Your task to perform on an android device: toggle show notifications on the lock screen Image 0: 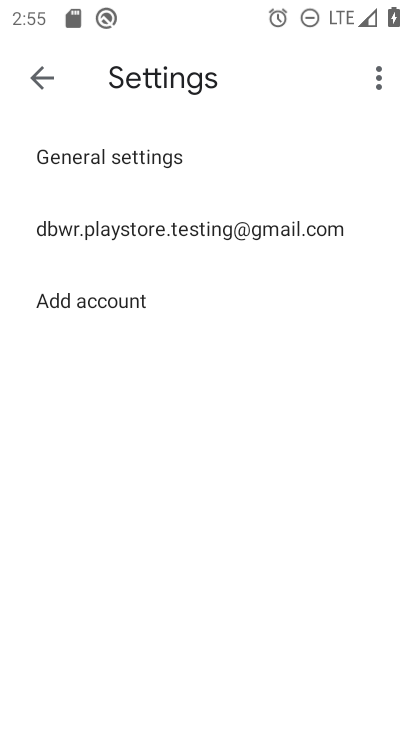
Step 0: click (261, 573)
Your task to perform on an android device: toggle show notifications on the lock screen Image 1: 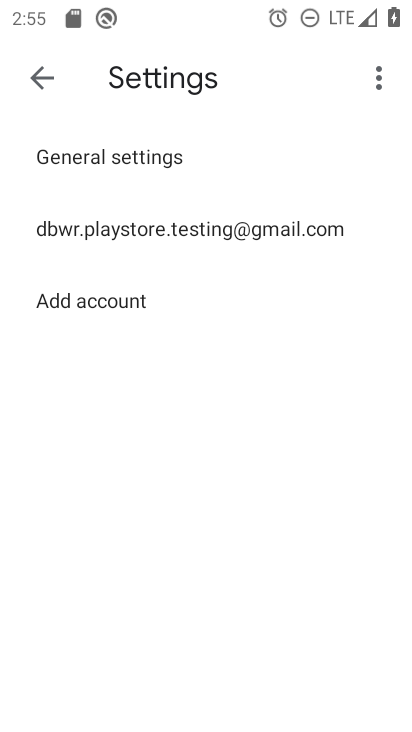
Step 1: press home button
Your task to perform on an android device: toggle show notifications on the lock screen Image 2: 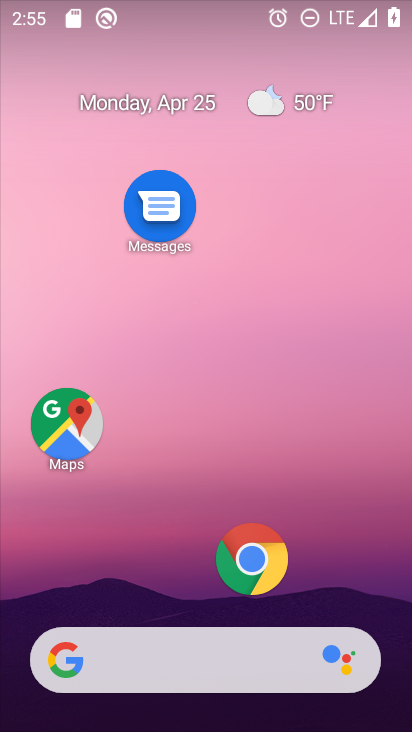
Step 2: drag from (175, 587) to (221, 12)
Your task to perform on an android device: toggle show notifications on the lock screen Image 3: 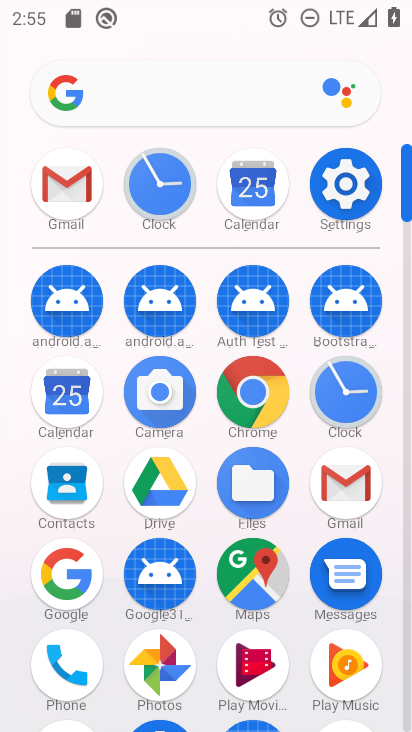
Step 3: click (347, 176)
Your task to perform on an android device: toggle show notifications on the lock screen Image 4: 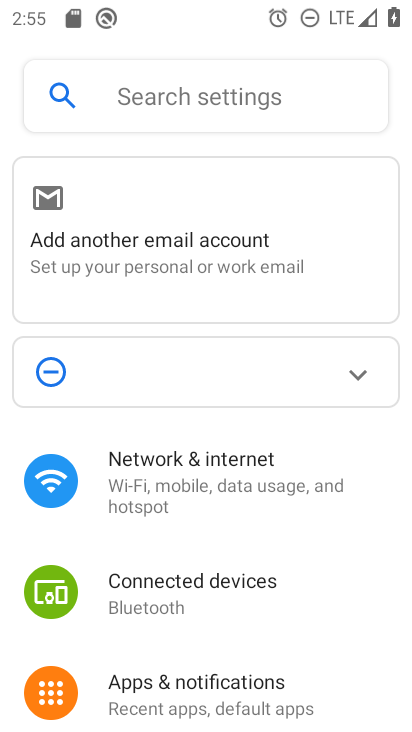
Step 4: click (177, 689)
Your task to perform on an android device: toggle show notifications on the lock screen Image 5: 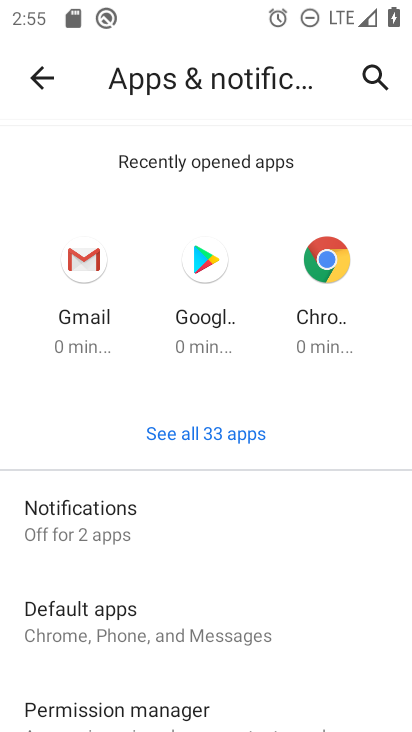
Step 5: click (110, 531)
Your task to perform on an android device: toggle show notifications on the lock screen Image 6: 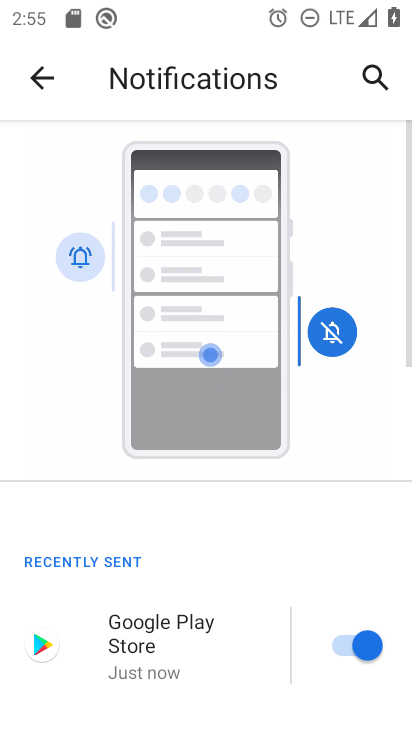
Step 6: drag from (128, 628) to (183, 235)
Your task to perform on an android device: toggle show notifications on the lock screen Image 7: 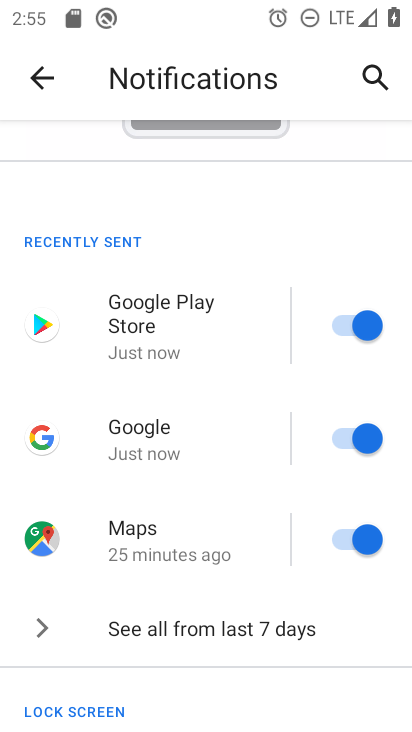
Step 7: drag from (176, 594) to (211, 151)
Your task to perform on an android device: toggle show notifications on the lock screen Image 8: 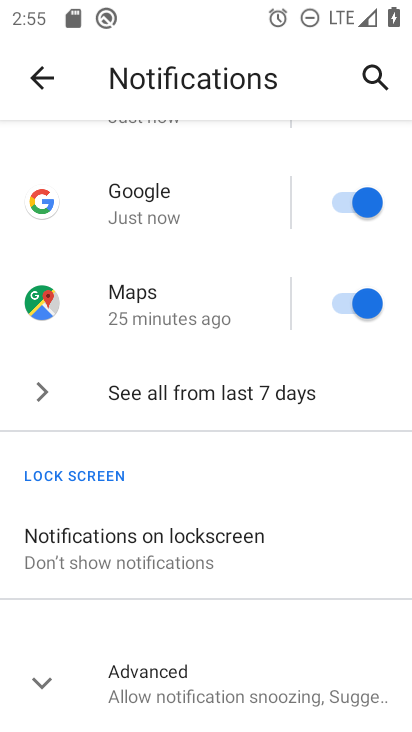
Step 8: click (163, 565)
Your task to perform on an android device: toggle show notifications on the lock screen Image 9: 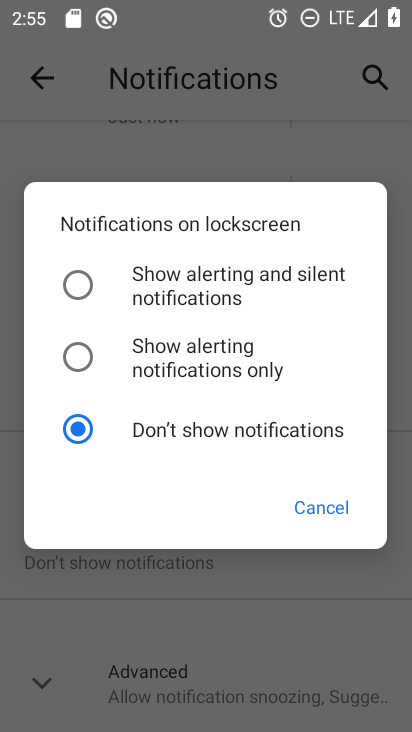
Step 9: click (98, 291)
Your task to perform on an android device: toggle show notifications on the lock screen Image 10: 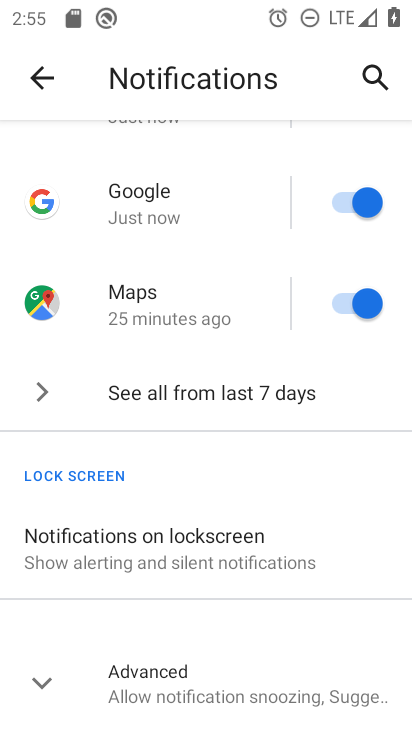
Step 10: task complete